Your task to perform on an android device: stop showing notifications on the lock screen Image 0: 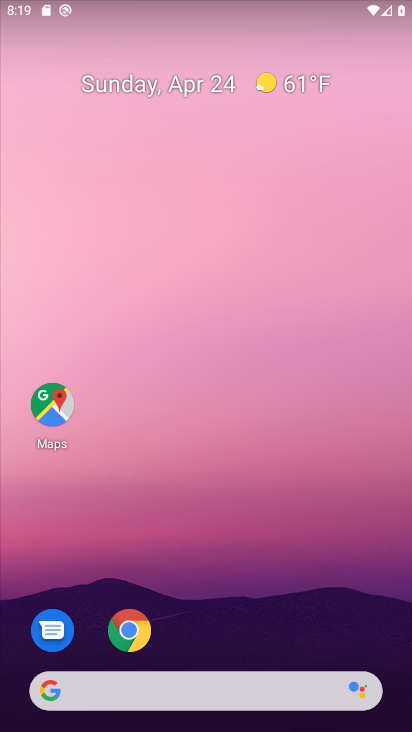
Step 0: drag from (357, 613) to (356, 107)
Your task to perform on an android device: stop showing notifications on the lock screen Image 1: 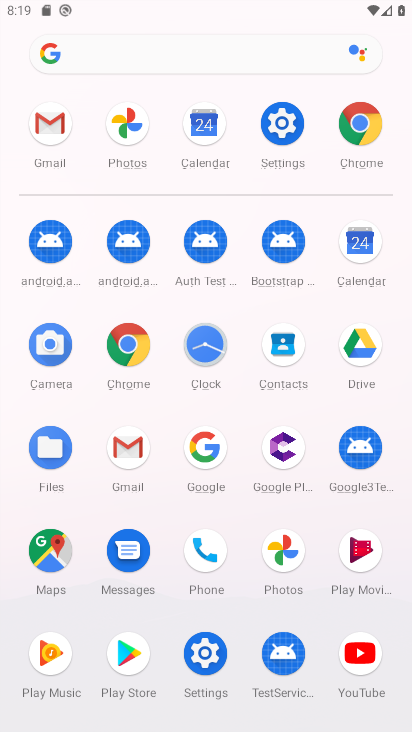
Step 1: click (277, 121)
Your task to perform on an android device: stop showing notifications on the lock screen Image 2: 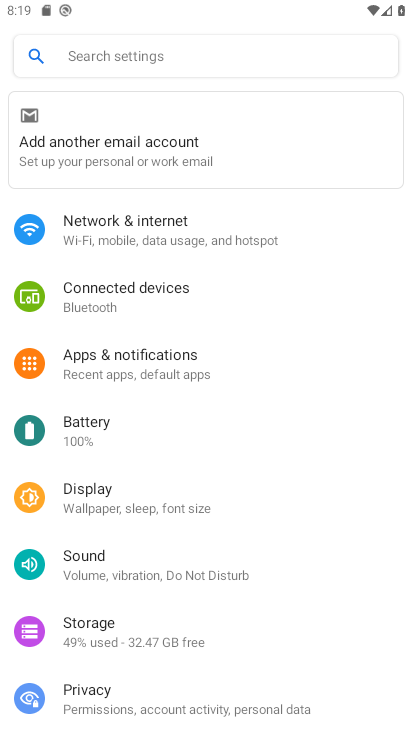
Step 2: drag from (382, 594) to (360, 408)
Your task to perform on an android device: stop showing notifications on the lock screen Image 3: 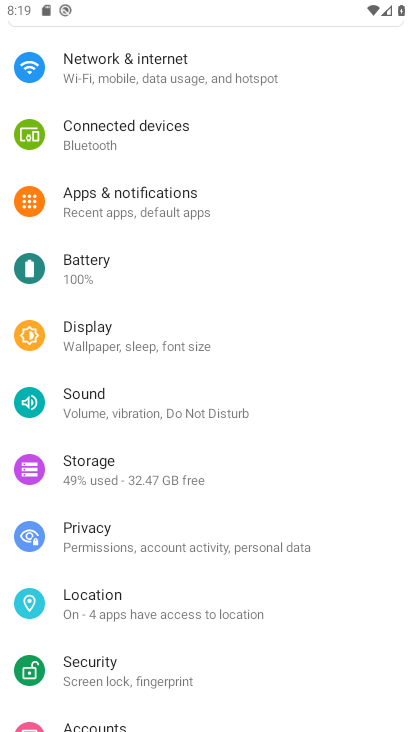
Step 3: drag from (353, 657) to (377, 420)
Your task to perform on an android device: stop showing notifications on the lock screen Image 4: 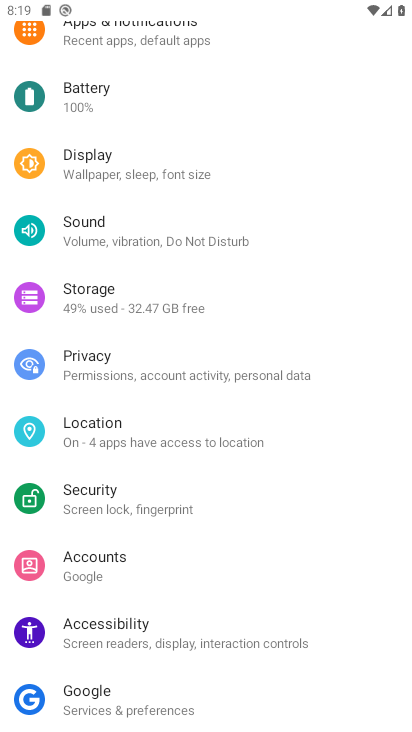
Step 4: drag from (333, 689) to (328, 340)
Your task to perform on an android device: stop showing notifications on the lock screen Image 5: 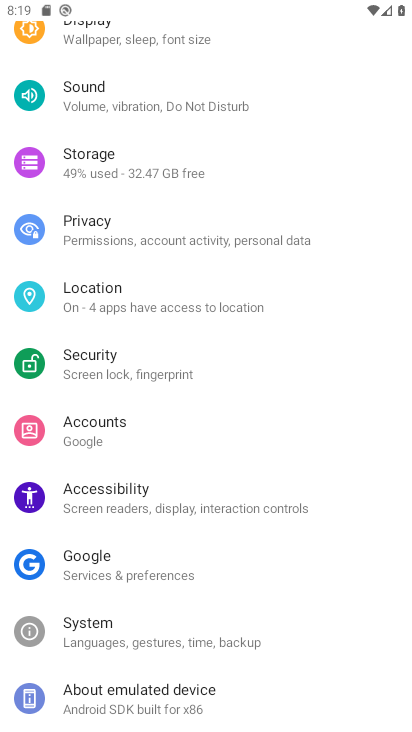
Step 5: drag from (334, 624) to (333, 413)
Your task to perform on an android device: stop showing notifications on the lock screen Image 6: 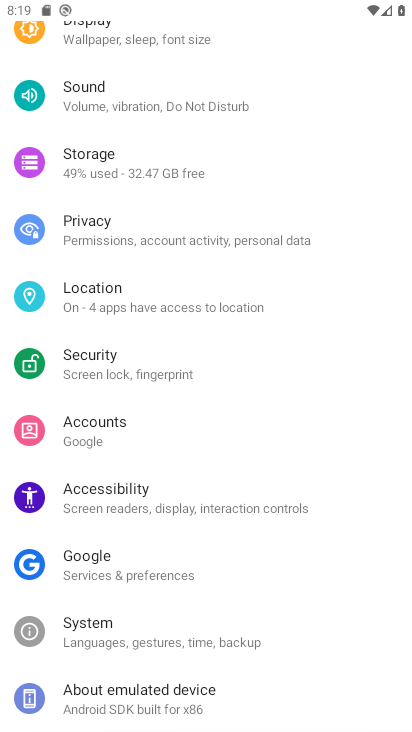
Step 6: drag from (335, 272) to (345, 474)
Your task to perform on an android device: stop showing notifications on the lock screen Image 7: 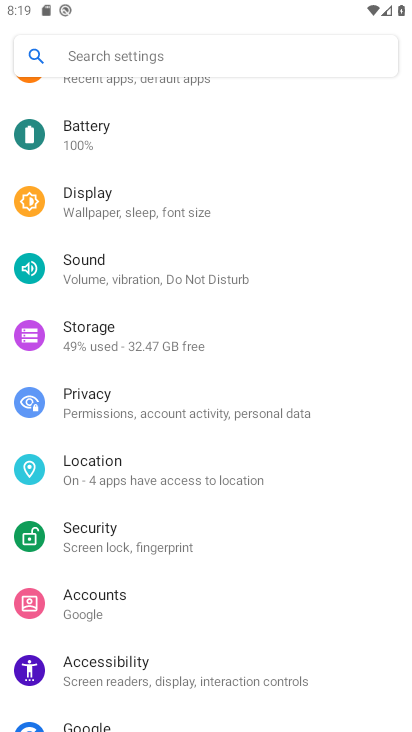
Step 7: drag from (352, 244) to (344, 461)
Your task to perform on an android device: stop showing notifications on the lock screen Image 8: 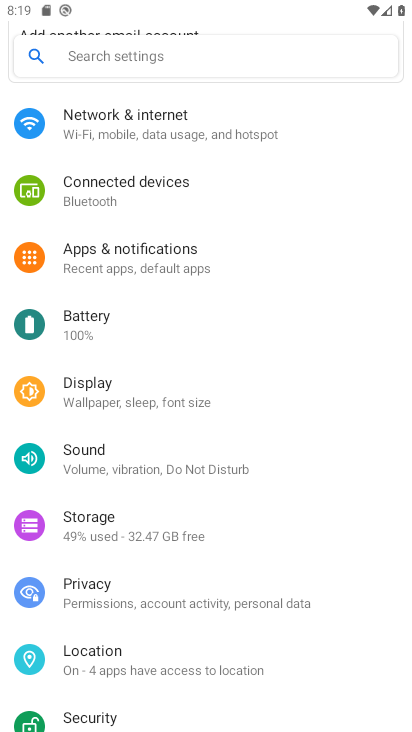
Step 8: drag from (339, 230) to (335, 427)
Your task to perform on an android device: stop showing notifications on the lock screen Image 9: 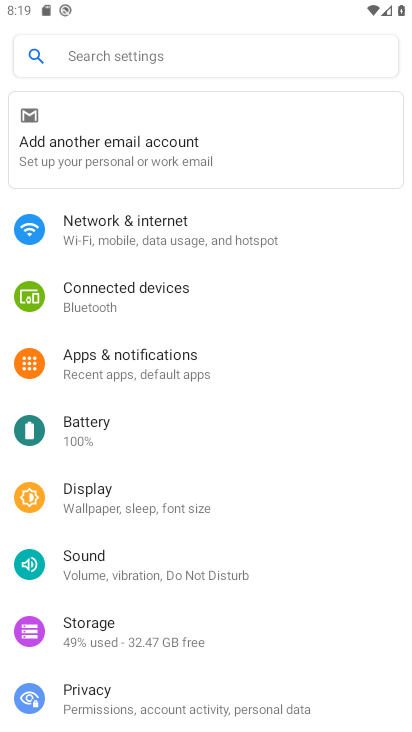
Step 9: click (201, 367)
Your task to perform on an android device: stop showing notifications on the lock screen Image 10: 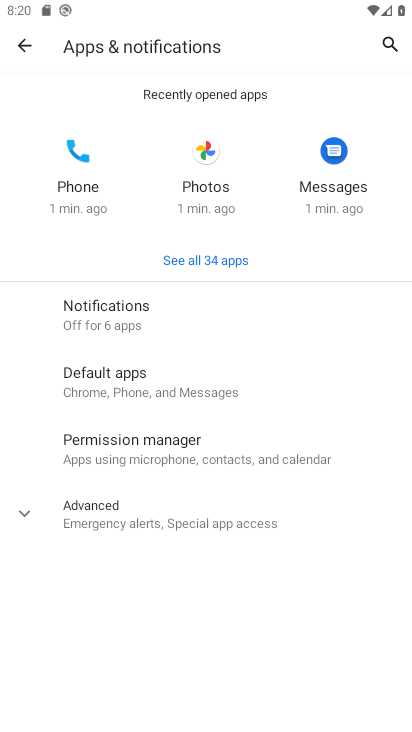
Step 10: click (141, 311)
Your task to perform on an android device: stop showing notifications on the lock screen Image 11: 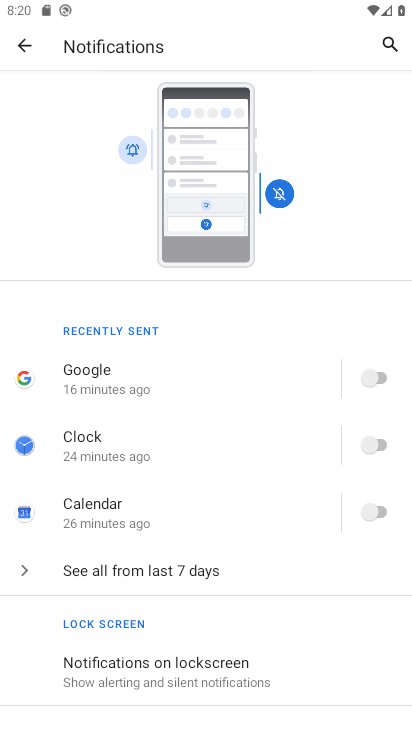
Step 11: drag from (288, 602) to (271, 356)
Your task to perform on an android device: stop showing notifications on the lock screen Image 12: 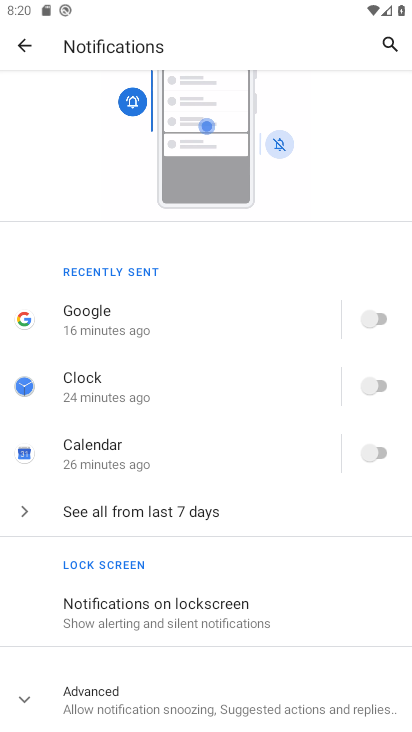
Step 12: click (247, 612)
Your task to perform on an android device: stop showing notifications on the lock screen Image 13: 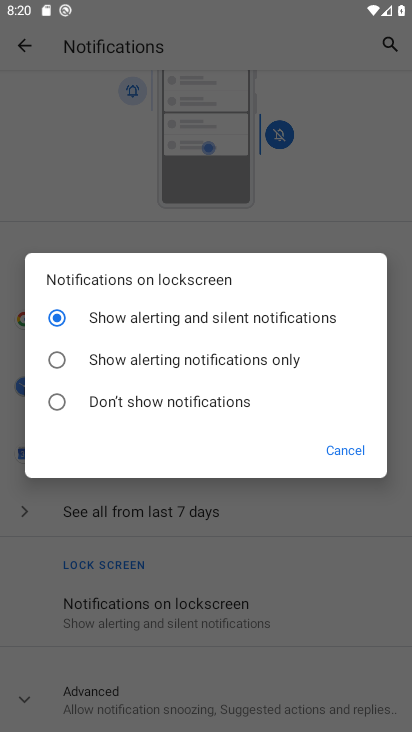
Step 13: click (201, 390)
Your task to perform on an android device: stop showing notifications on the lock screen Image 14: 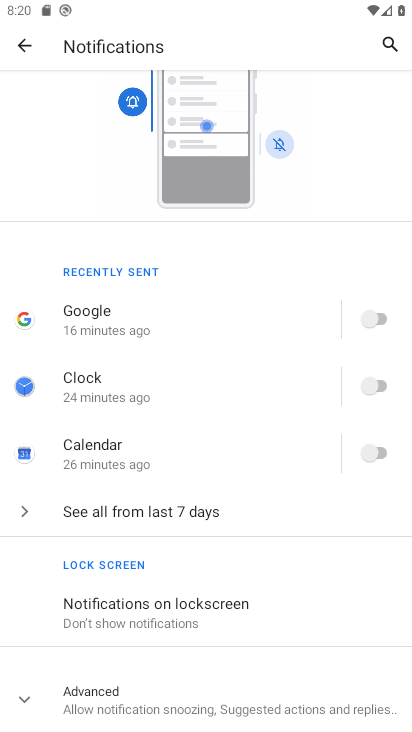
Step 14: task complete